Your task to perform on an android device: What's the weather? Image 0: 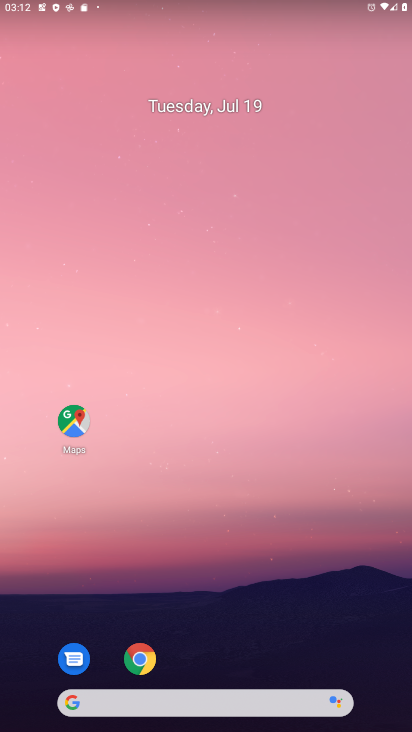
Step 0: press home button
Your task to perform on an android device: What's the weather? Image 1: 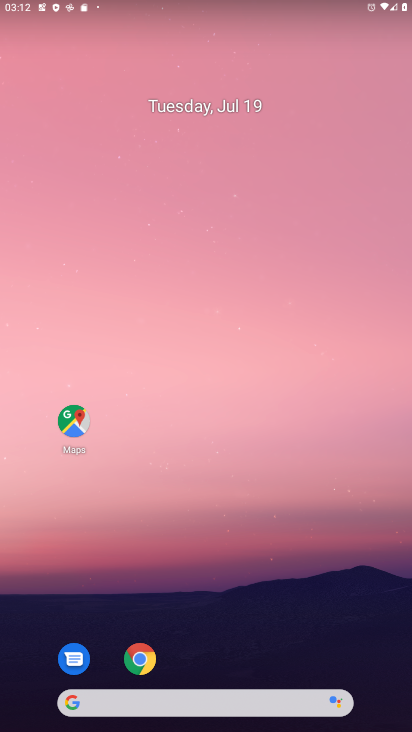
Step 1: click (156, 654)
Your task to perform on an android device: What's the weather? Image 2: 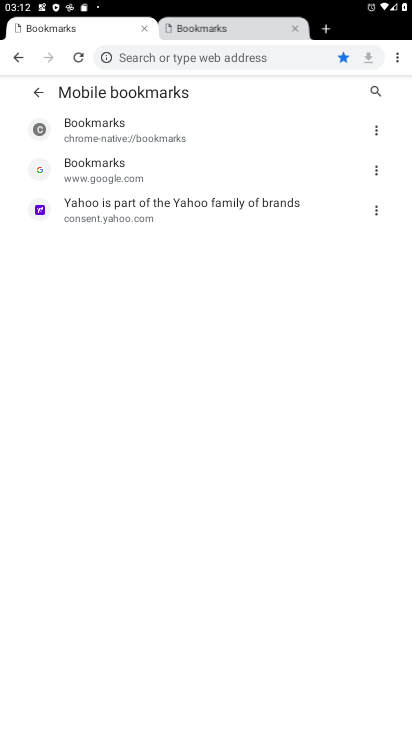
Step 2: click (198, 46)
Your task to perform on an android device: What's the weather? Image 3: 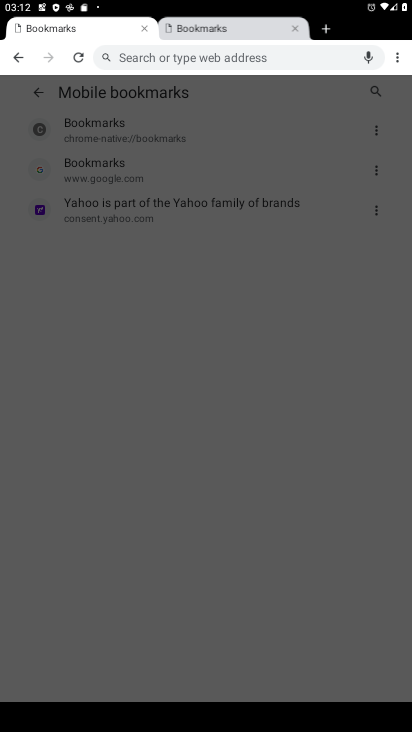
Step 3: type "What's the weather?"
Your task to perform on an android device: What's the weather? Image 4: 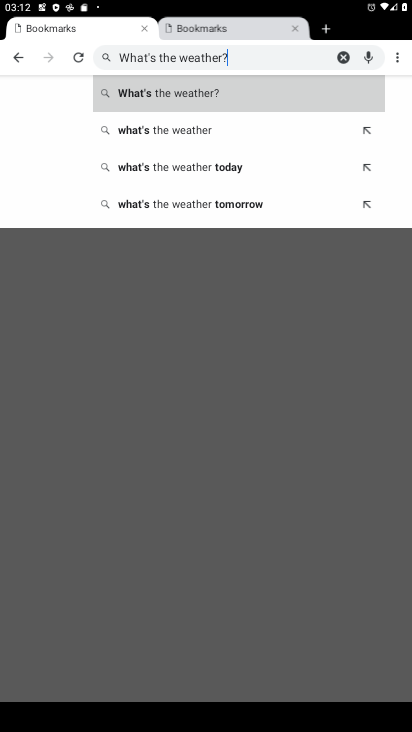
Step 4: type ""
Your task to perform on an android device: What's the weather? Image 5: 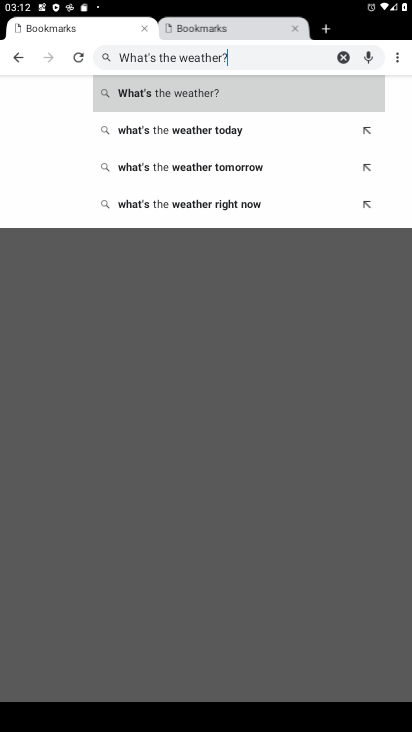
Step 5: click (137, 81)
Your task to perform on an android device: What's the weather? Image 6: 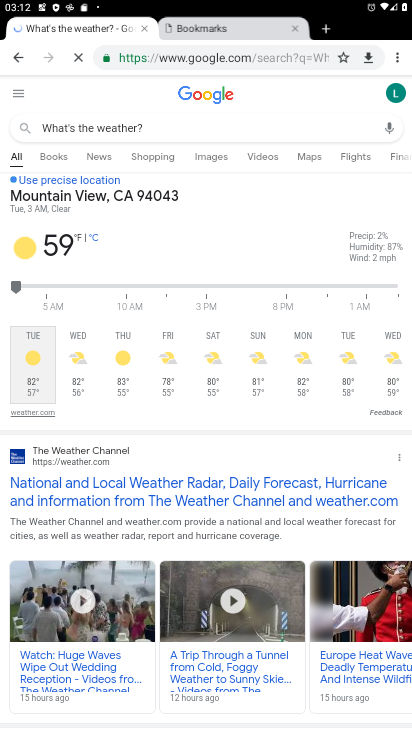
Step 6: task complete